Your task to perform on an android device: Search for pizza restaurants on Maps Image 0: 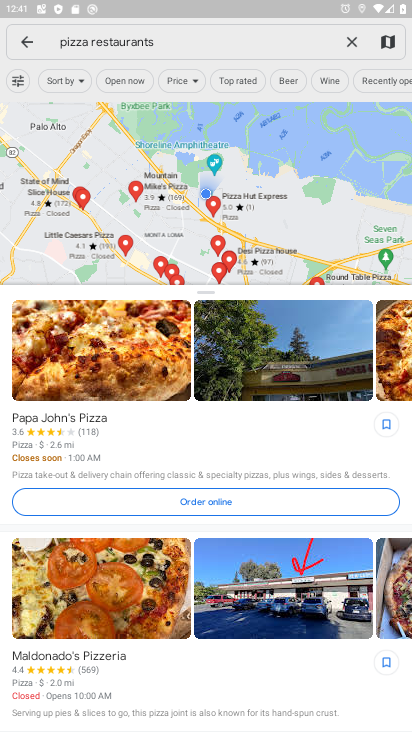
Step 0: press home button
Your task to perform on an android device: Search for pizza restaurants on Maps Image 1: 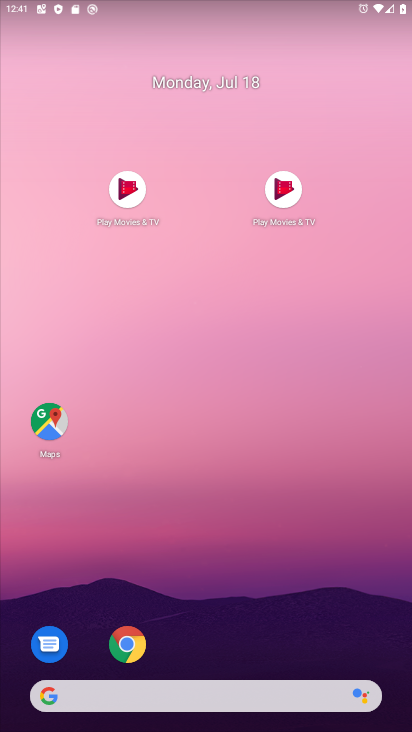
Step 1: drag from (302, 635) to (289, 263)
Your task to perform on an android device: Search for pizza restaurants on Maps Image 2: 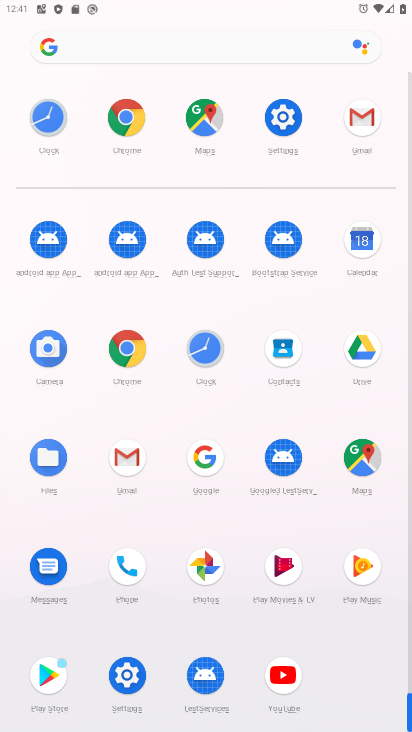
Step 2: click (354, 456)
Your task to perform on an android device: Search for pizza restaurants on Maps Image 3: 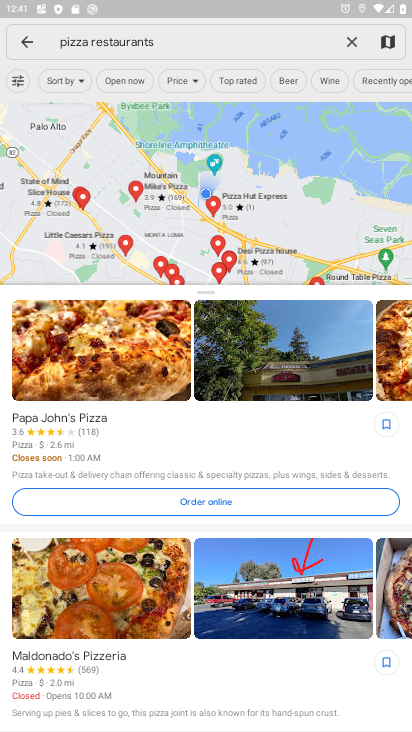
Step 3: task complete